Your task to perform on an android device: Open the Play Movies app and select the watchlist tab. Image 0: 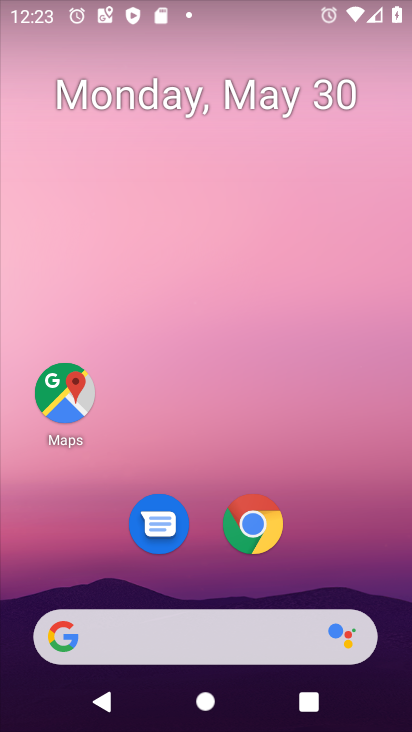
Step 0: drag from (221, 453) to (267, 14)
Your task to perform on an android device: Open the Play Movies app and select the watchlist tab. Image 1: 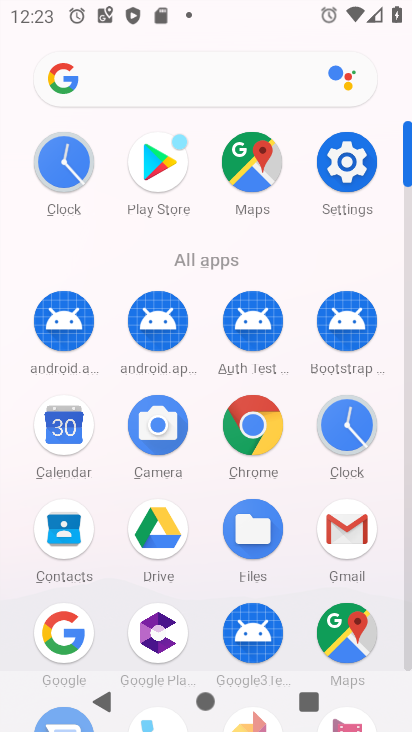
Step 1: drag from (294, 584) to (277, 241)
Your task to perform on an android device: Open the Play Movies app and select the watchlist tab. Image 2: 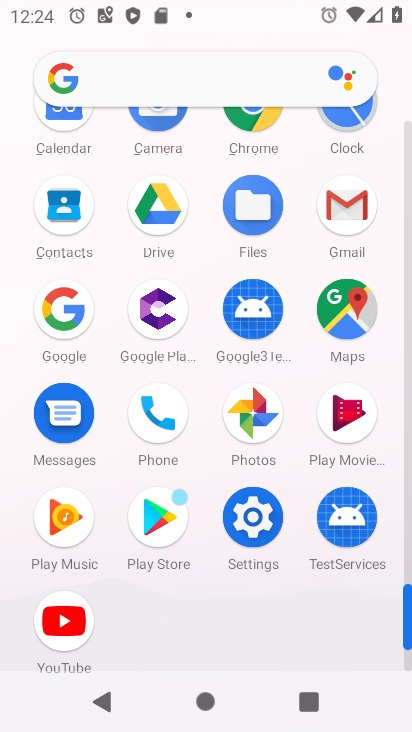
Step 2: click (354, 419)
Your task to perform on an android device: Open the Play Movies app and select the watchlist tab. Image 3: 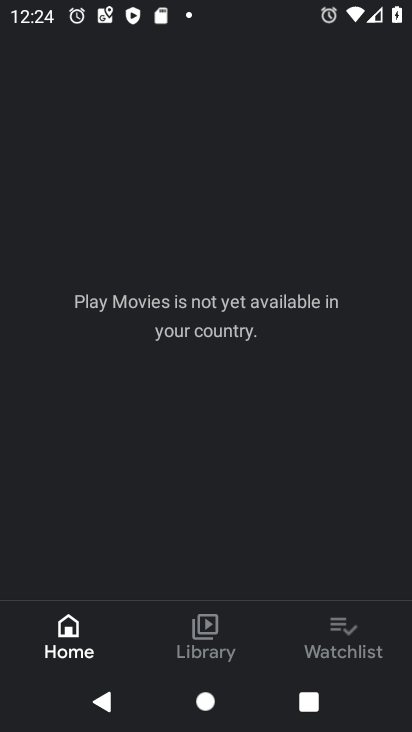
Step 3: click (351, 634)
Your task to perform on an android device: Open the Play Movies app and select the watchlist tab. Image 4: 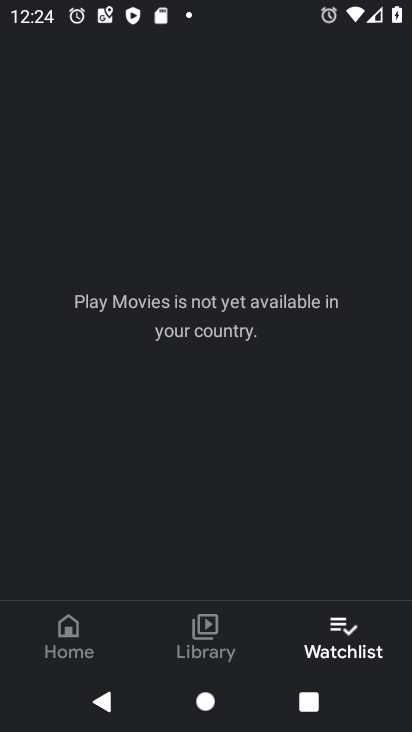
Step 4: task complete